Your task to perform on an android device: What's on my calendar tomorrow? Image 0: 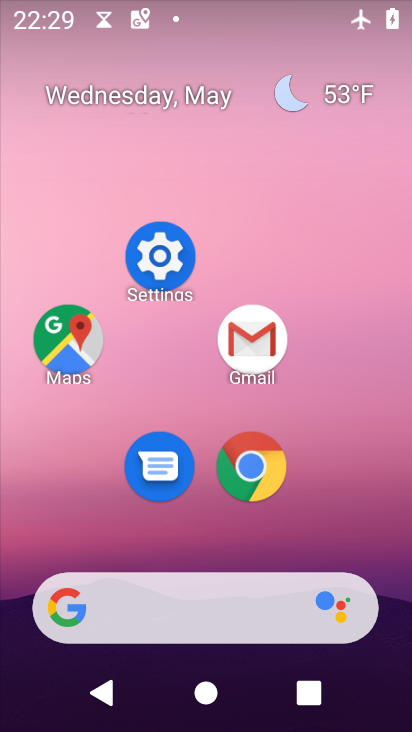
Step 0: drag from (179, 554) to (230, 254)
Your task to perform on an android device: What's on my calendar tomorrow? Image 1: 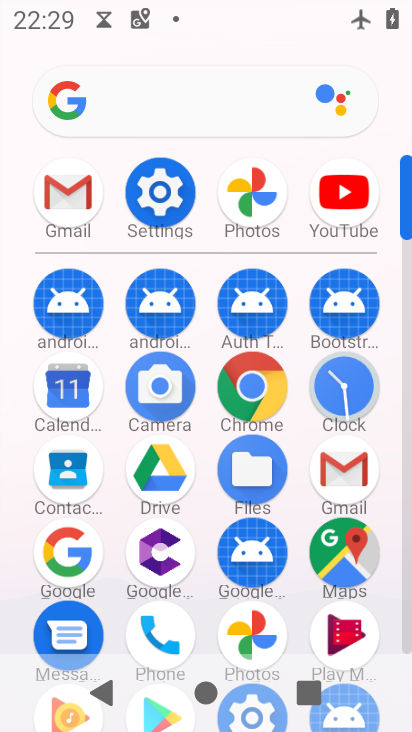
Step 1: click (79, 380)
Your task to perform on an android device: What's on my calendar tomorrow? Image 2: 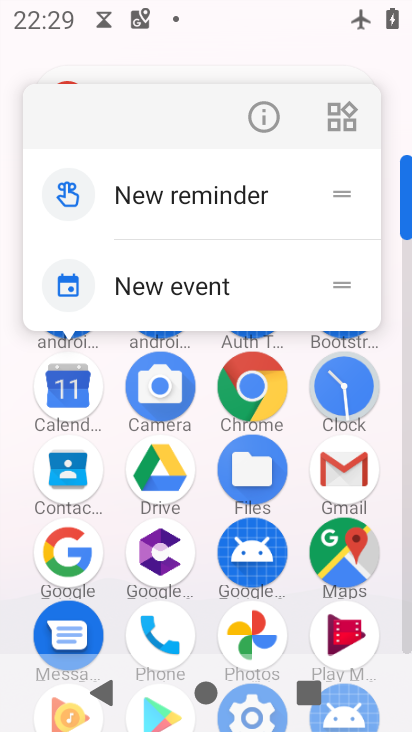
Step 2: click (260, 105)
Your task to perform on an android device: What's on my calendar tomorrow? Image 3: 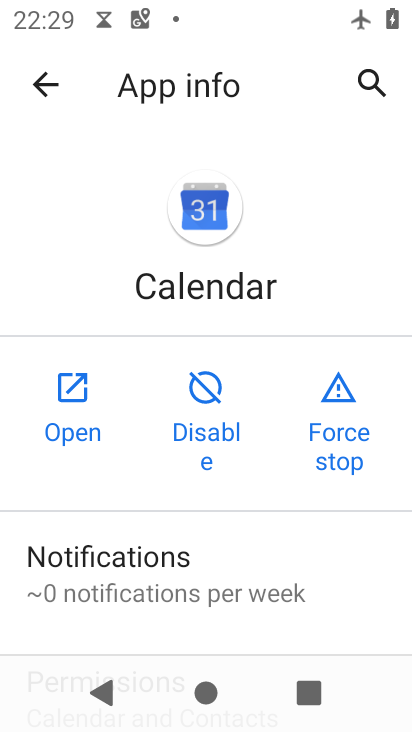
Step 3: click (66, 401)
Your task to perform on an android device: What's on my calendar tomorrow? Image 4: 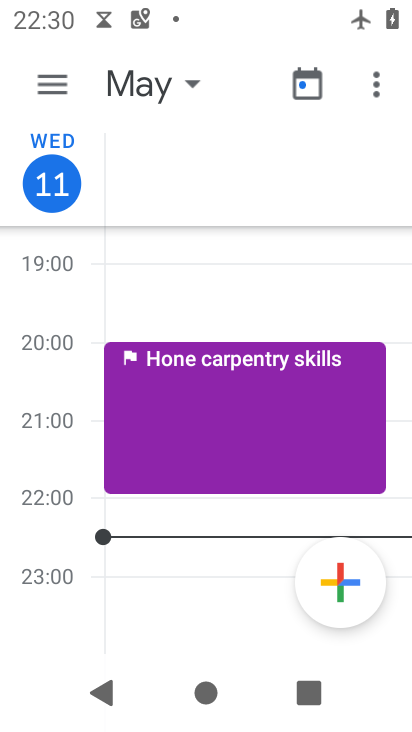
Step 4: drag from (224, 603) to (174, 559)
Your task to perform on an android device: What's on my calendar tomorrow? Image 5: 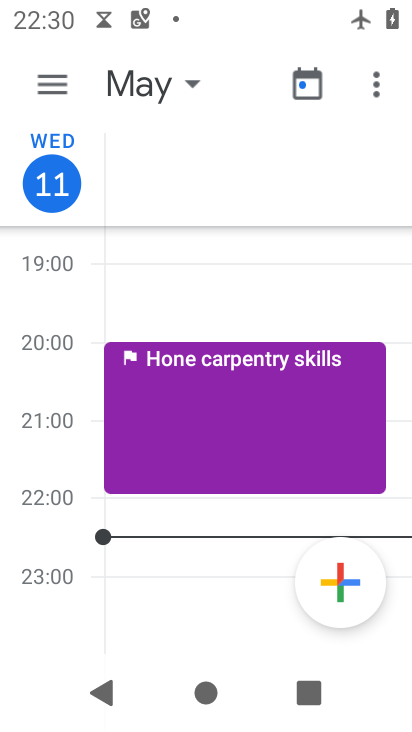
Step 5: click (129, 68)
Your task to perform on an android device: What's on my calendar tomorrow? Image 6: 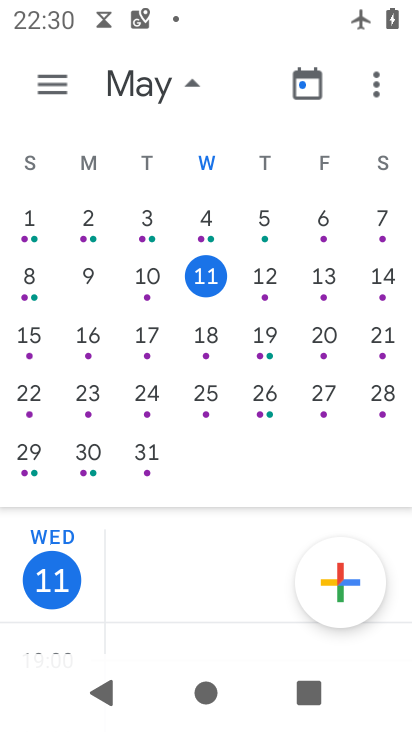
Step 6: click (199, 289)
Your task to perform on an android device: What's on my calendar tomorrow? Image 7: 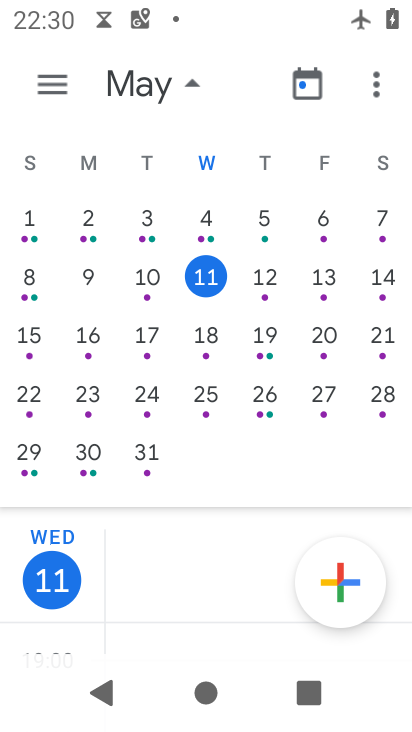
Step 7: click (264, 286)
Your task to perform on an android device: What's on my calendar tomorrow? Image 8: 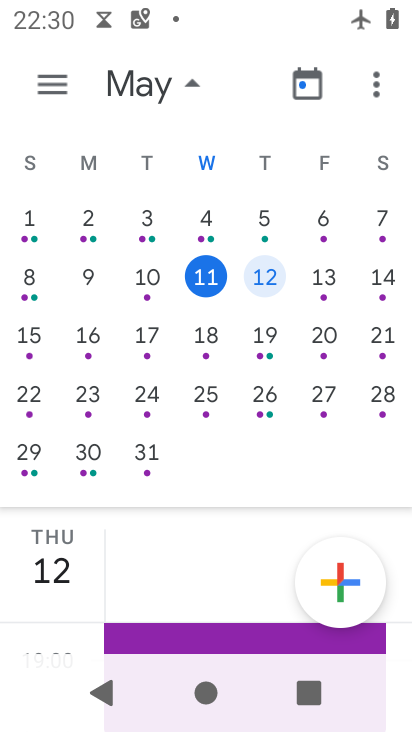
Step 8: task complete